Your task to perform on an android device: change the clock display to show seconds Image 0: 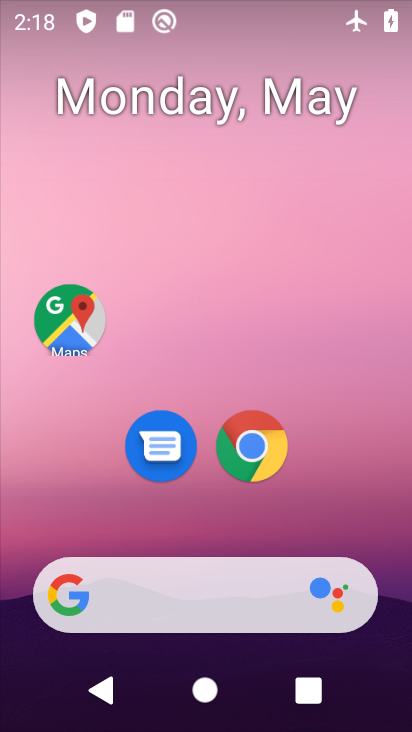
Step 0: press home button
Your task to perform on an android device: change the clock display to show seconds Image 1: 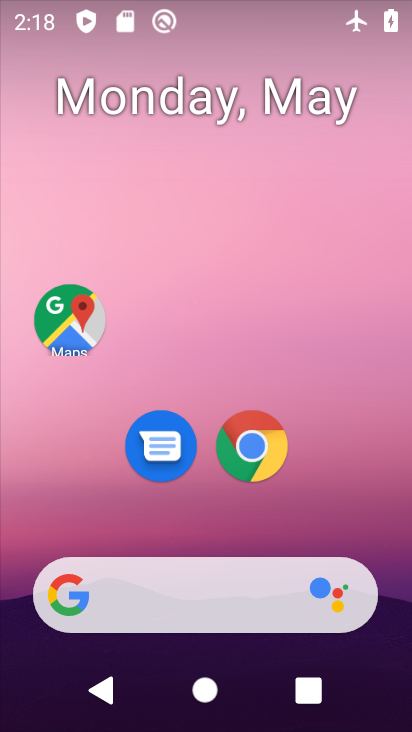
Step 1: drag from (322, 478) to (311, 134)
Your task to perform on an android device: change the clock display to show seconds Image 2: 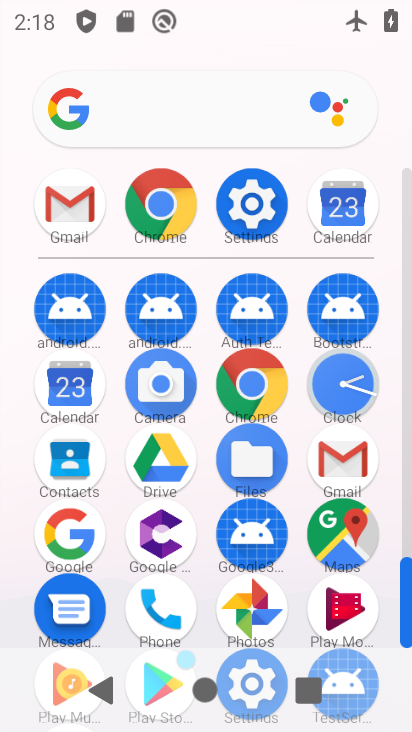
Step 2: click (345, 380)
Your task to perform on an android device: change the clock display to show seconds Image 3: 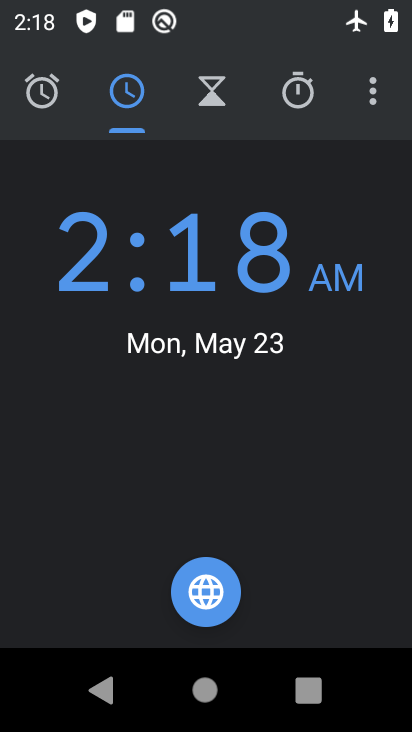
Step 3: click (368, 88)
Your task to perform on an android device: change the clock display to show seconds Image 4: 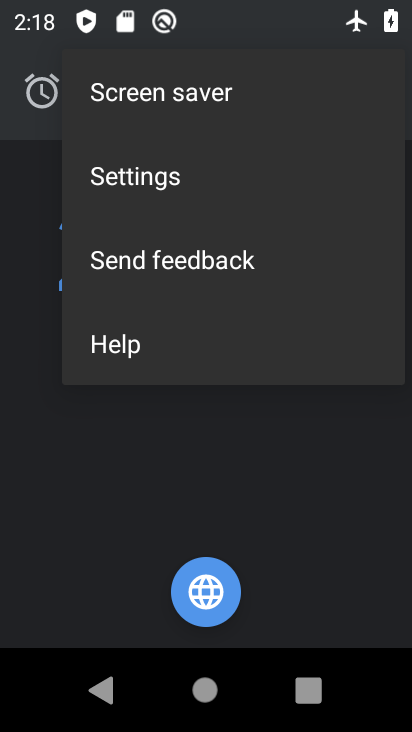
Step 4: click (222, 181)
Your task to perform on an android device: change the clock display to show seconds Image 5: 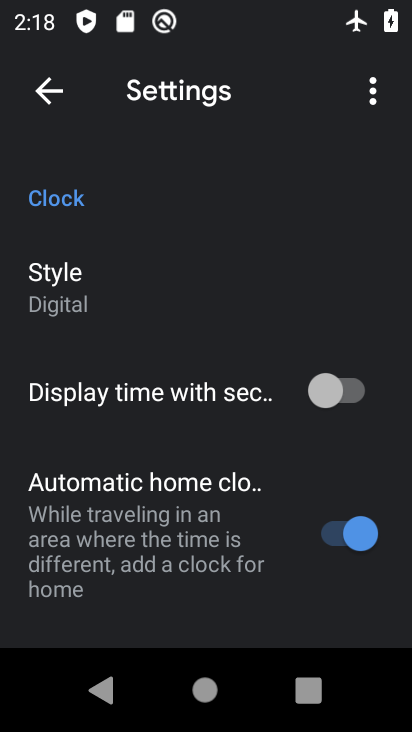
Step 5: click (353, 389)
Your task to perform on an android device: change the clock display to show seconds Image 6: 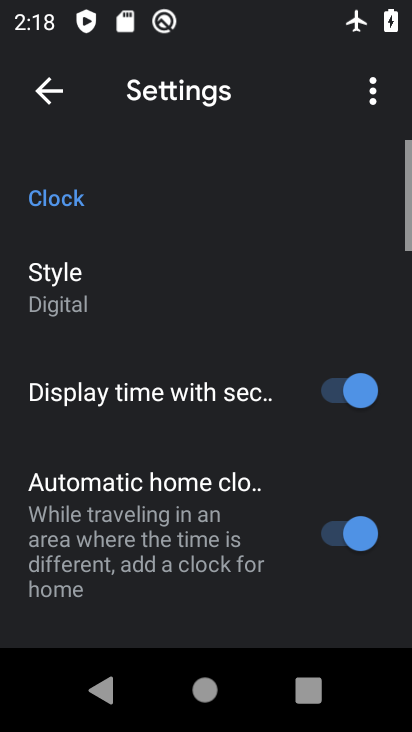
Step 6: task complete